Your task to perform on an android device: Open Reddit.com Image 0: 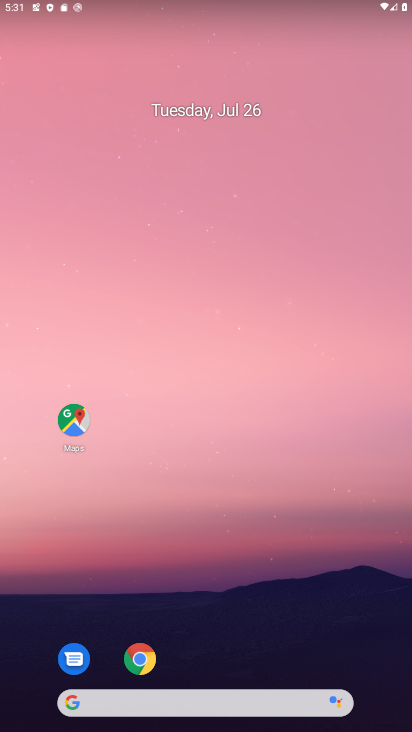
Step 0: click (258, 695)
Your task to perform on an android device: Open Reddit.com Image 1: 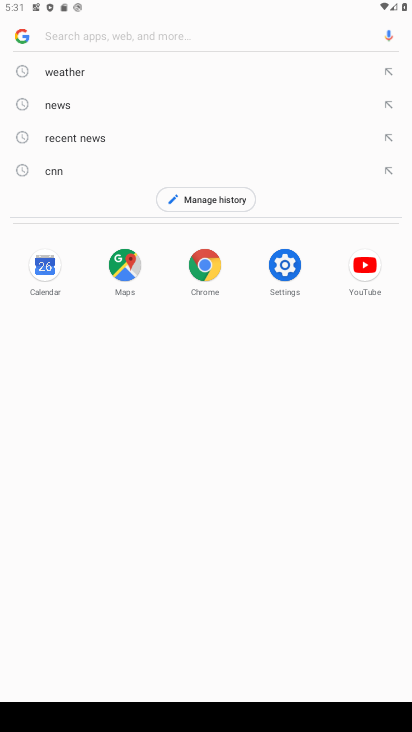
Step 1: type " Reddit.com"
Your task to perform on an android device: Open Reddit.com Image 2: 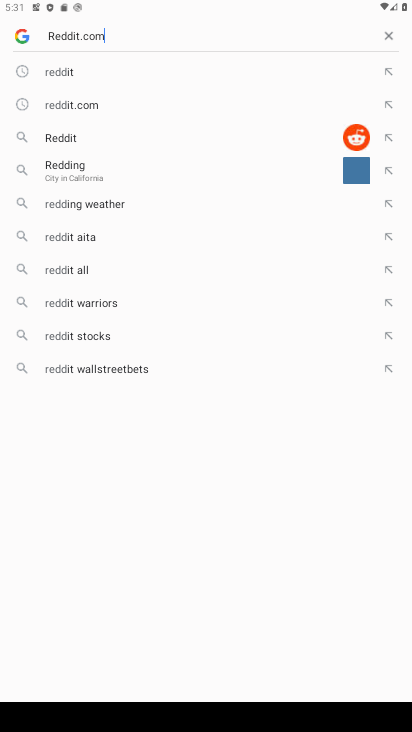
Step 2: press enter
Your task to perform on an android device: Open Reddit.com Image 3: 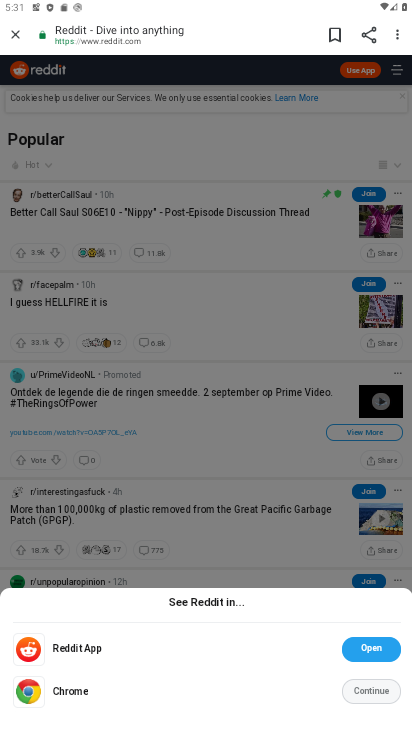
Step 3: task complete